Your task to perform on an android device: Check the weather Image 0: 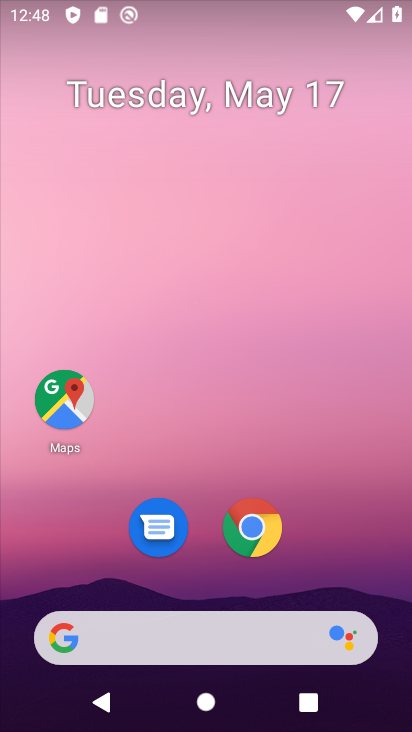
Step 0: drag from (1, 308) to (377, 240)
Your task to perform on an android device: Check the weather Image 1: 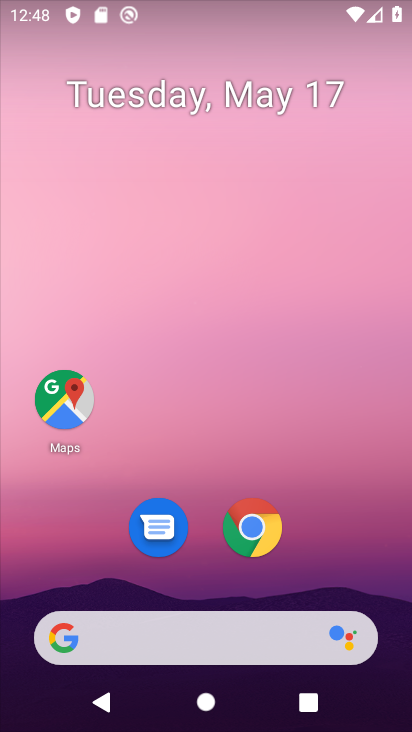
Step 1: drag from (7, 325) to (397, 322)
Your task to perform on an android device: Check the weather Image 2: 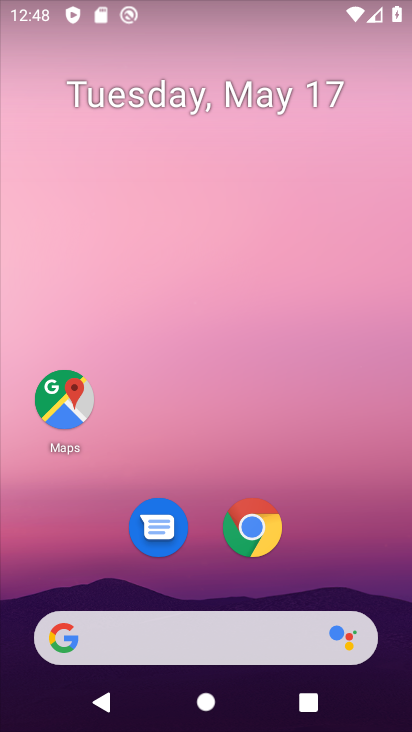
Step 2: drag from (1, 264) to (397, 171)
Your task to perform on an android device: Check the weather Image 3: 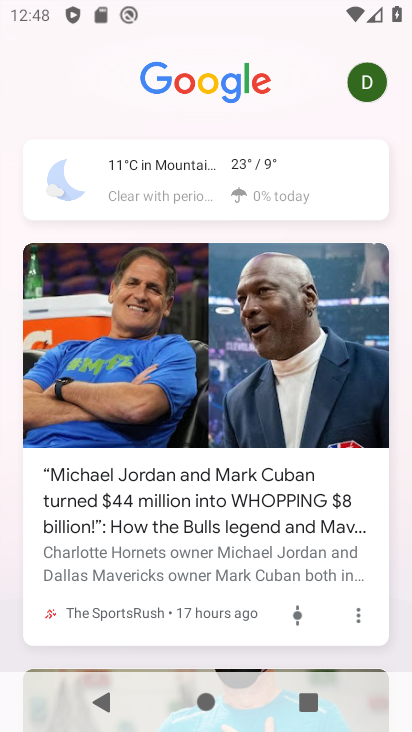
Step 3: click (277, 192)
Your task to perform on an android device: Check the weather Image 4: 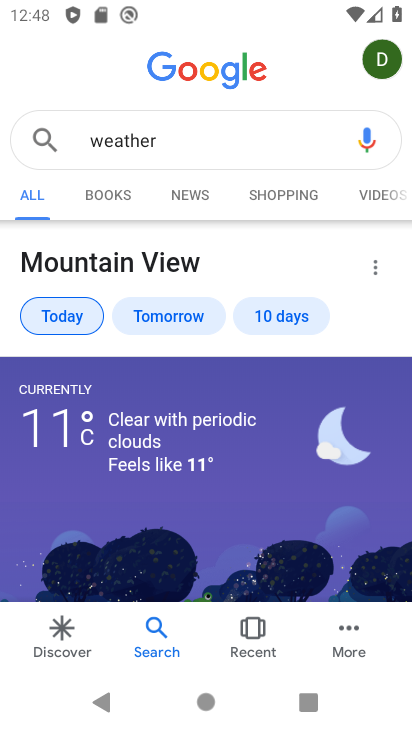
Step 4: task complete